Your task to perform on an android device: Go to eBay Image 0: 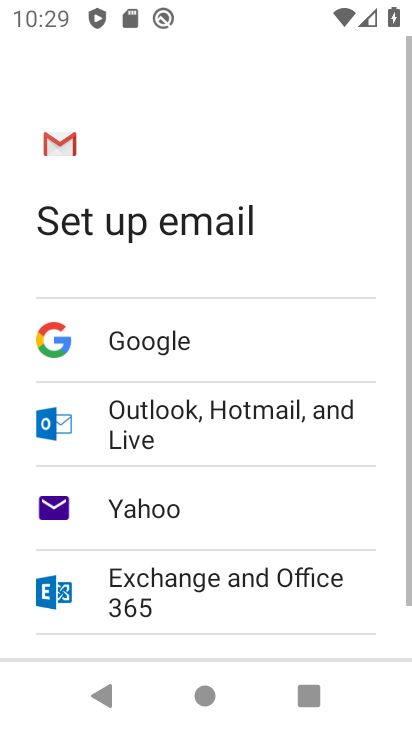
Step 0: press home button
Your task to perform on an android device: Go to eBay Image 1: 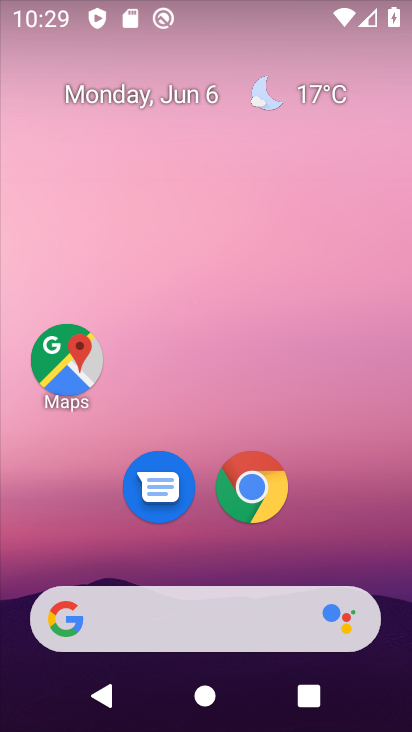
Step 1: click (238, 507)
Your task to perform on an android device: Go to eBay Image 2: 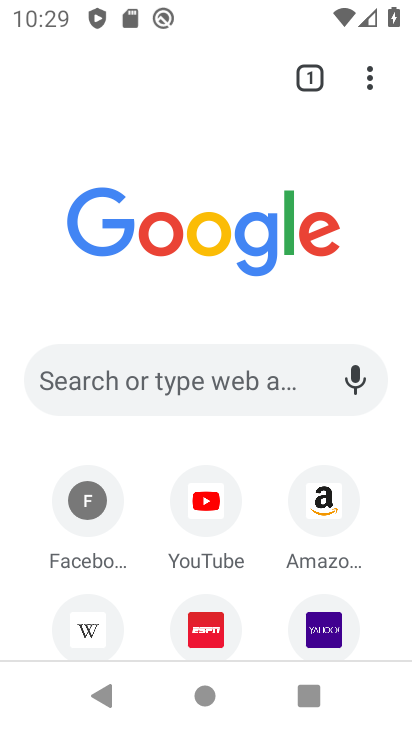
Step 2: click (208, 381)
Your task to perform on an android device: Go to eBay Image 3: 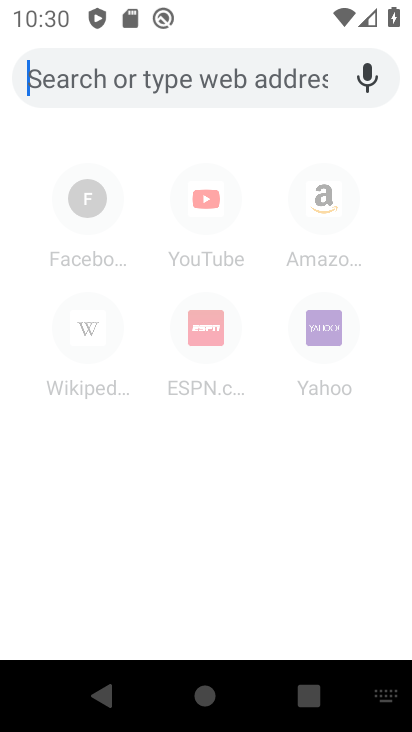
Step 3: type "ebay"
Your task to perform on an android device: Go to eBay Image 4: 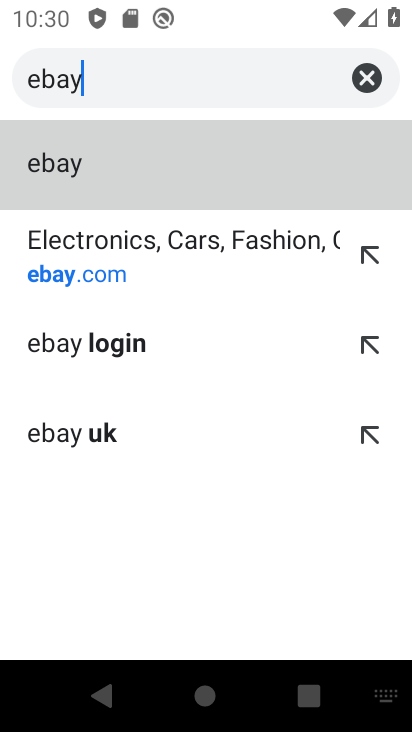
Step 4: click (239, 265)
Your task to perform on an android device: Go to eBay Image 5: 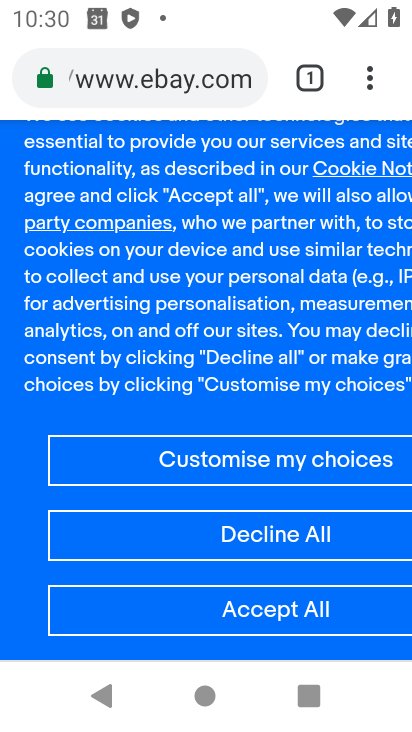
Step 5: click (275, 611)
Your task to perform on an android device: Go to eBay Image 6: 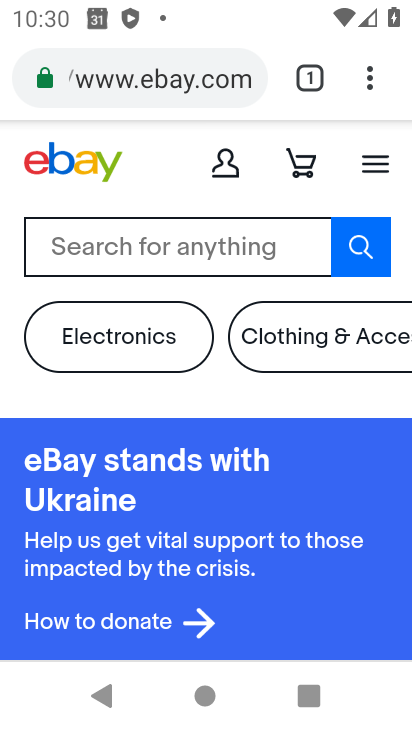
Step 6: task complete